Your task to perform on an android device: Open accessibility settings Image 0: 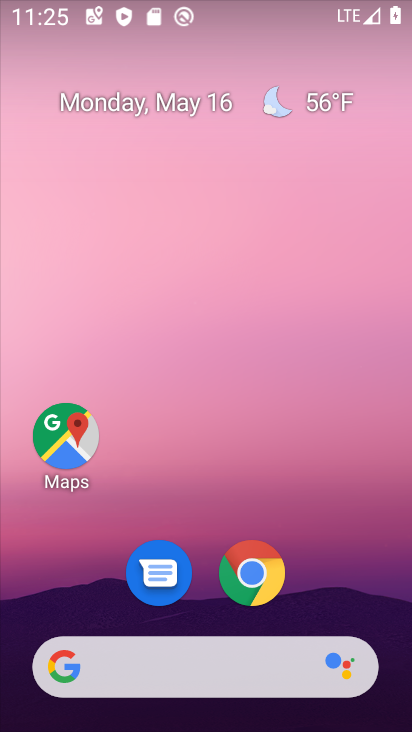
Step 0: drag from (173, 717) to (267, 154)
Your task to perform on an android device: Open accessibility settings Image 1: 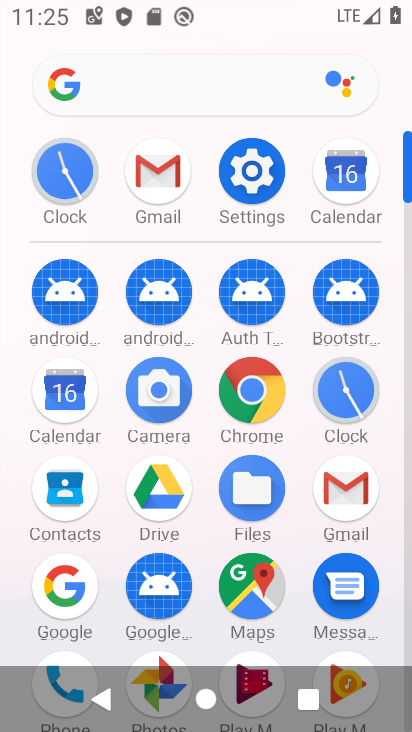
Step 1: click (265, 179)
Your task to perform on an android device: Open accessibility settings Image 2: 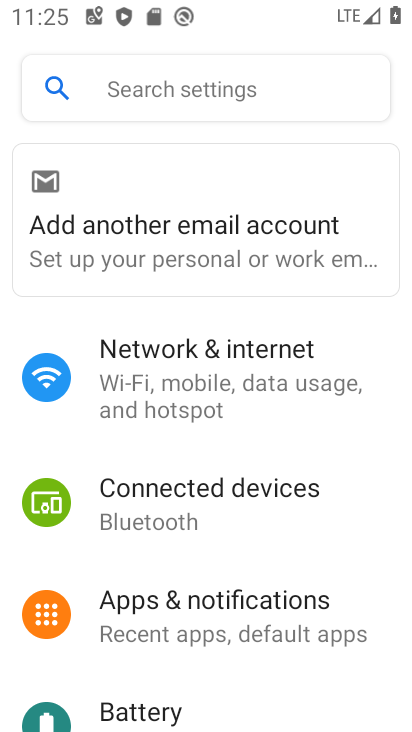
Step 2: drag from (174, 698) to (185, 50)
Your task to perform on an android device: Open accessibility settings Image 3: 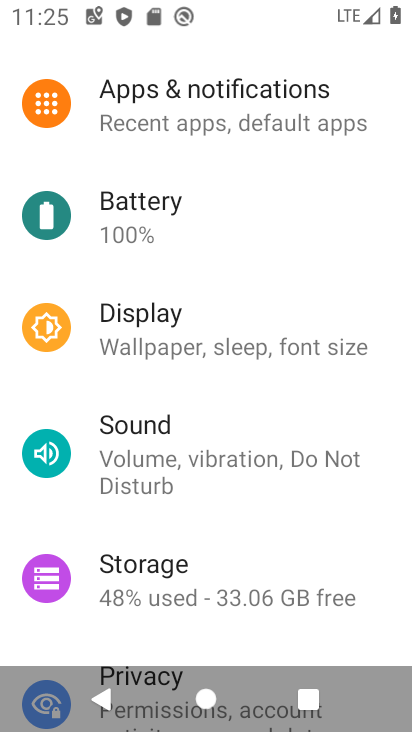
Step 3: drag from (242, 665) to (241, 149)
Your task to perform on an android device: Open accessibility settings Image 4: 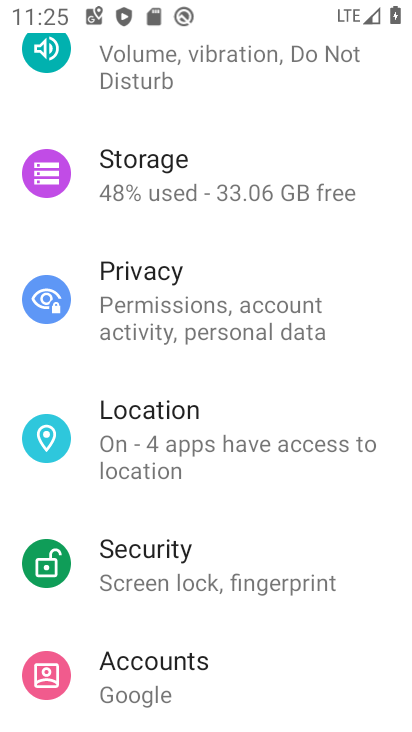
Step 4: drag from (208, 678) to (203, 214)
Your task to perform on an android device: Open accessibility settings Image 5: 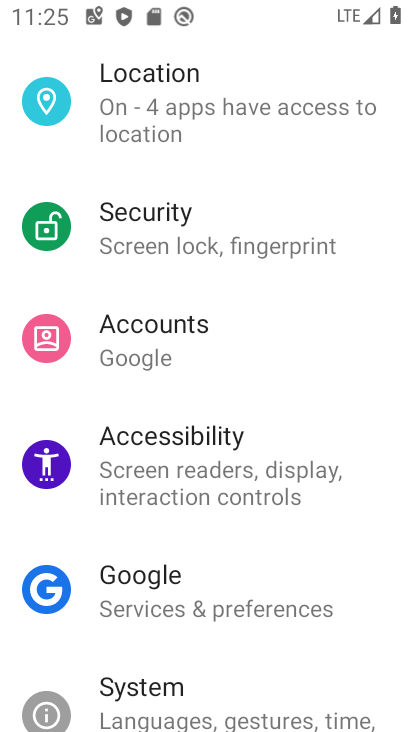
Step 5: click (230, 492)
Your task to perform on an android device: Open accessibility settings Image 6: 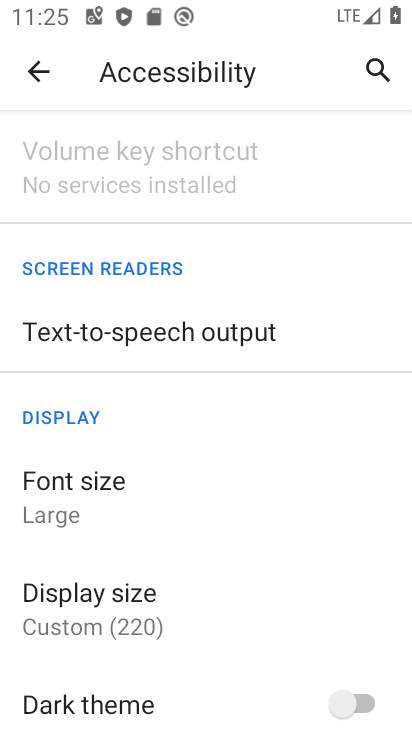
Step 6: task complete